Your task to perform on an android device: toggle show notifications on the lock screen Image 0: 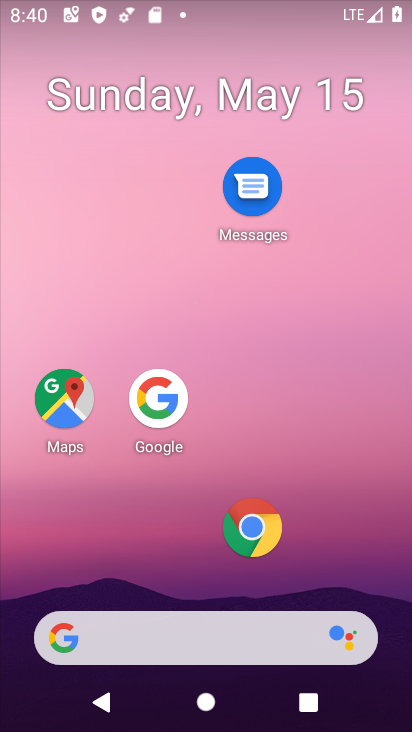
Step 0: press home button
Your task to perform on an android device: toggle show notifications on the lock screen Image 1: 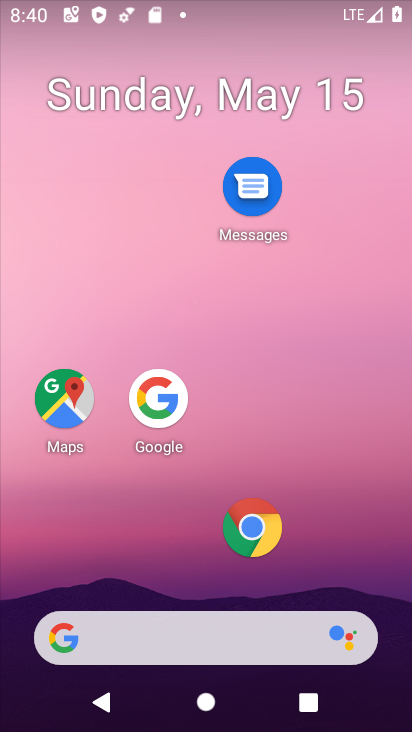
Step 1: drag from (213, 482) to (311, 140)
Your task to perform on an android device: toggle show notifications on the lock screen Image 2: 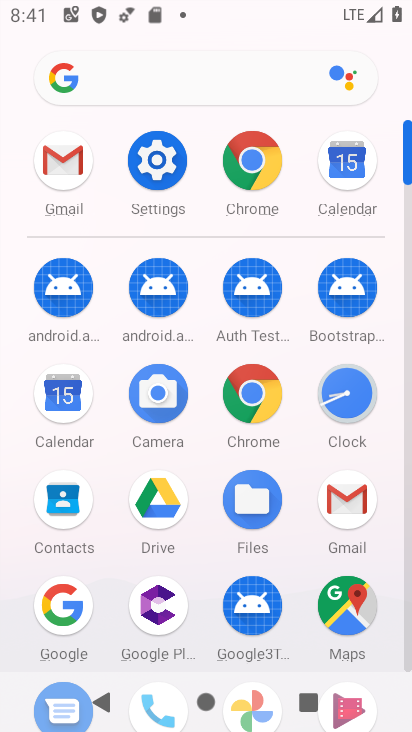
Step 2: click (162, 171)
Your task to perform on an android device: toggle show notifications on the lock screen Image 3: 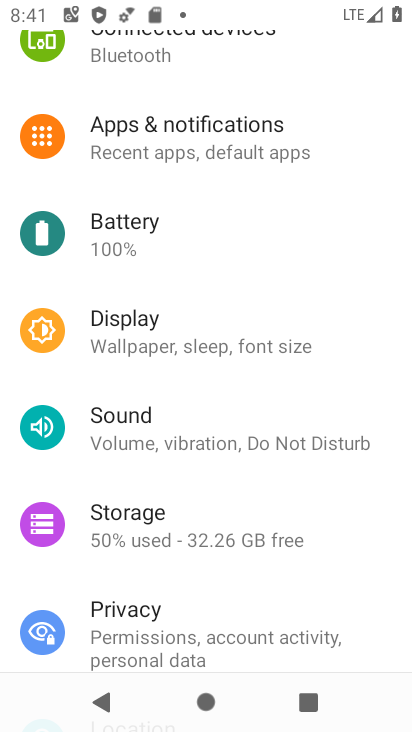
Step 3: click (212, 139)
Your task to perform on an android device: toggle show notifications on the lock screen Image 4: 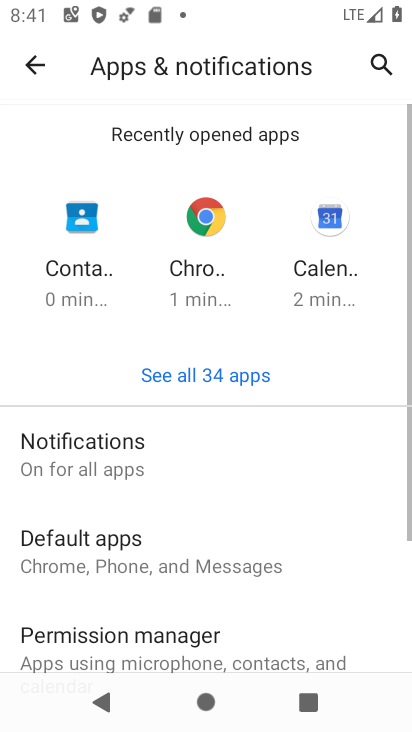
Step 4: click (82, 434)
Your task to perform on an android device: toggle show notifications on the lock screen Image 5: 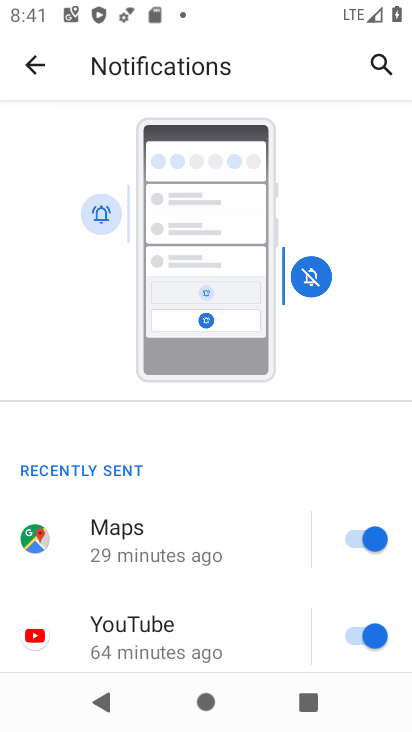
Step 5: drag from (224, 615) to (354, 176)
Your task to perform on an android device: toggle show notifications on the lock screen Image 6: 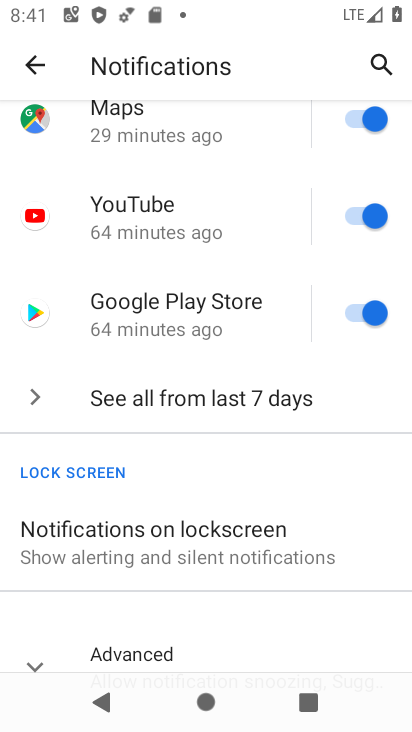
Step 6: click (219, 546)
Your task to perform on an android device: toggle show notifications on the lock screen Image 7: 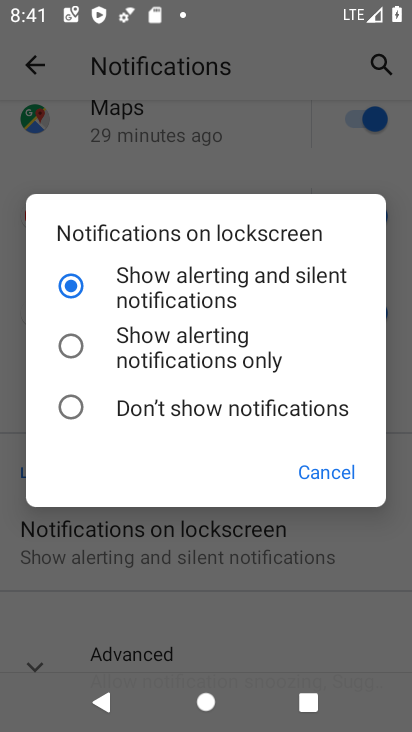
Step 7: click (71, 341)
Your task to perform on an android device: toggle show notifications on the lock screen Image 8: 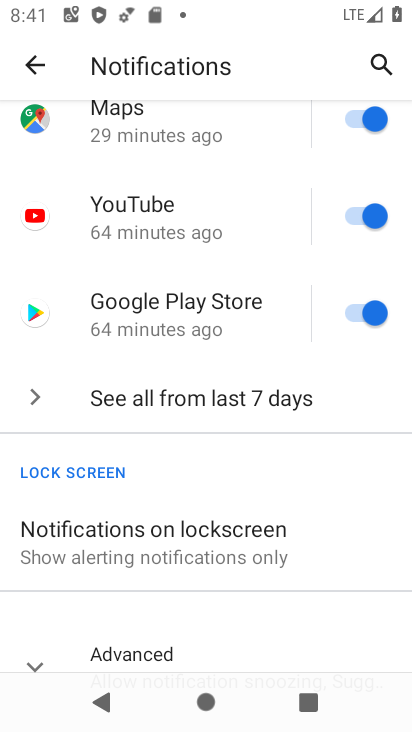
Step 8: task complete